Your task to perform on an android device: turn on wifi Image 0: 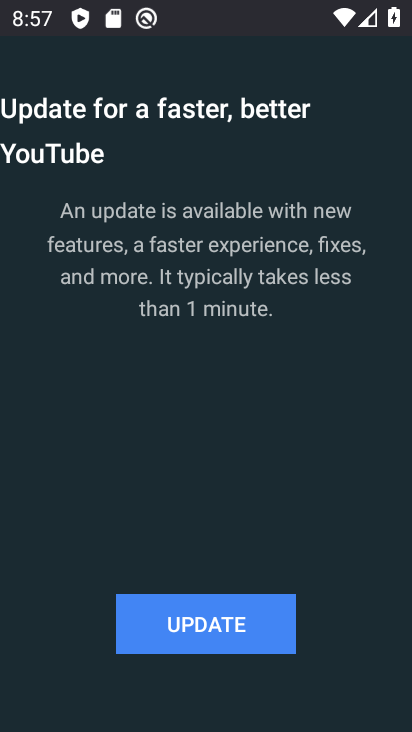
Step 0: press home button
Your task to perform on an android device: turn on wifi Image 1: 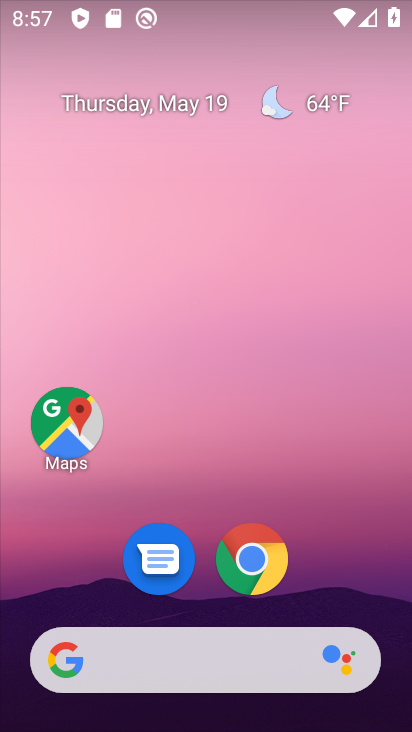
Step 1: drag from (205, 721) to (211, 238)
Your task to perform on an android device: turn on wifi Image 2: 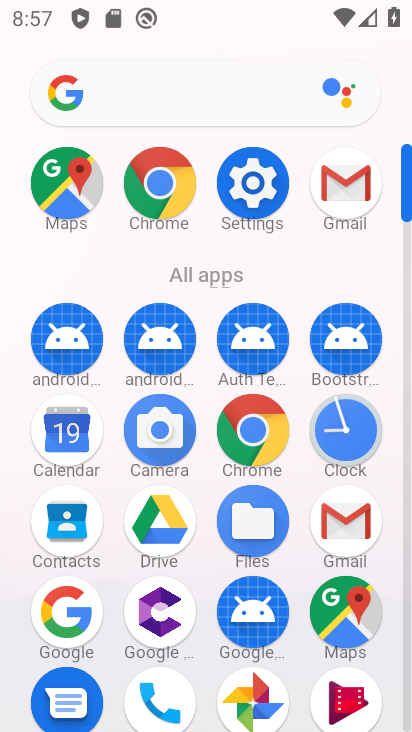
Step 2: click (252, 172)
Your task to perform on an android device: turn on wifi Image 3: 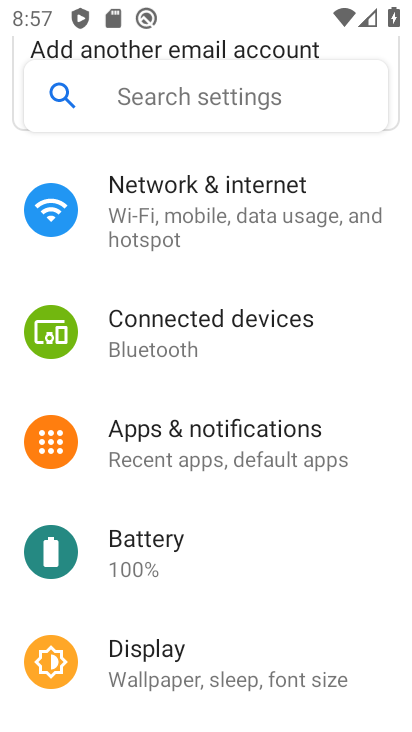
Step 3: drag from (212, 200) to (210, 446)
Your task to perform on an android device: turn on wifi Image 4: 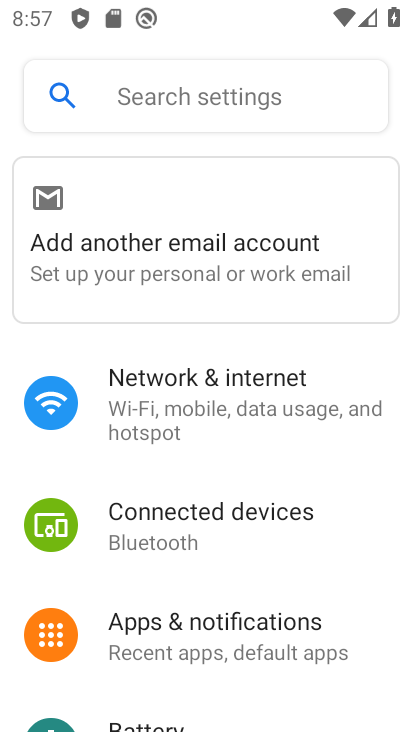
Step 4: click (175, 392)
Your task to perform on an android device: turn on wifi Image 5: 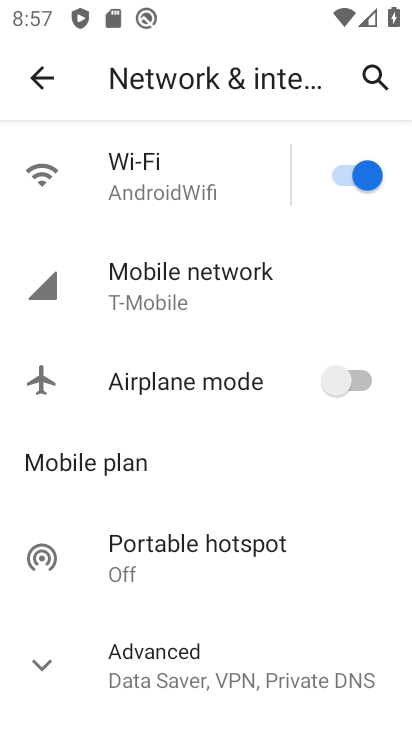
Step 5: click (145, 181)
Your task to perform on an android device: turn on wifi Image 6: 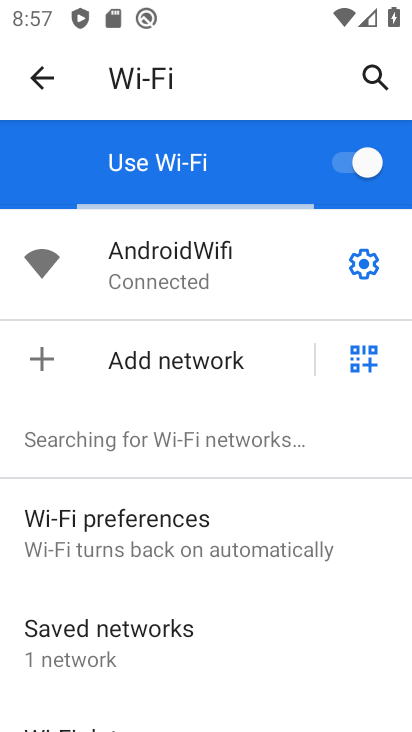
Step 6: task complete